Your task to perform on an android device: turn off priority inbox in the gmail app Image 0: 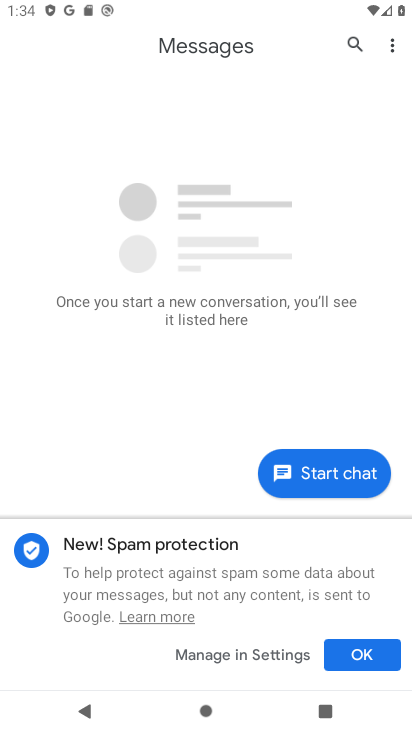
Step 0: press home button
Your task to perform on an android device: turn off priority inbox in the gmail app Image 1: 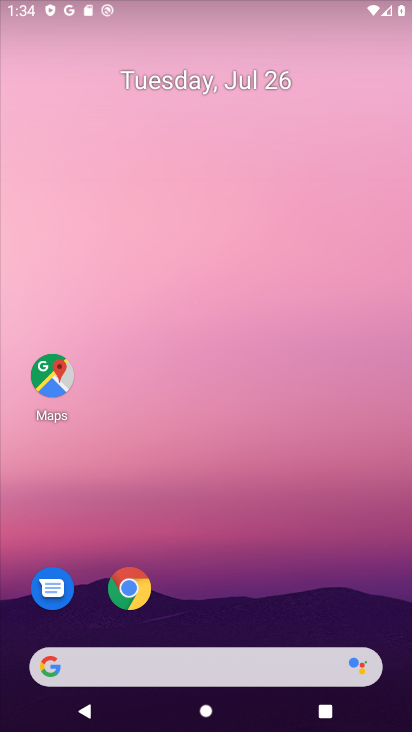
Step 1: drag from (221, 619) to (182, 35)
Your task to perform on an android device: turn off priority inbox in the gmail app Image 2: 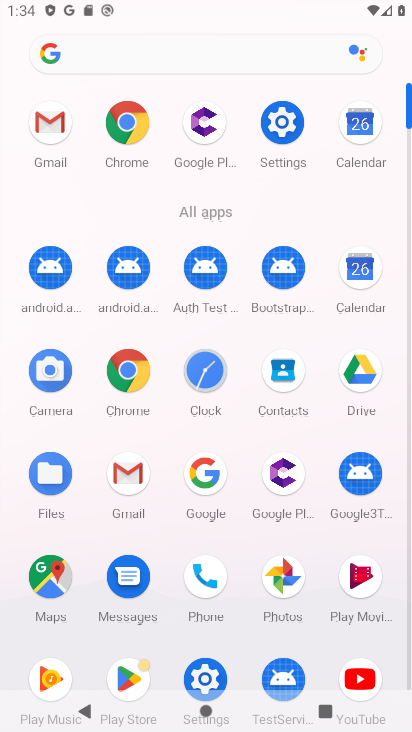
Step 2: click (133, 481)
Your task to perform on an android device: turn off priority inbox in the gmail app Image 3: 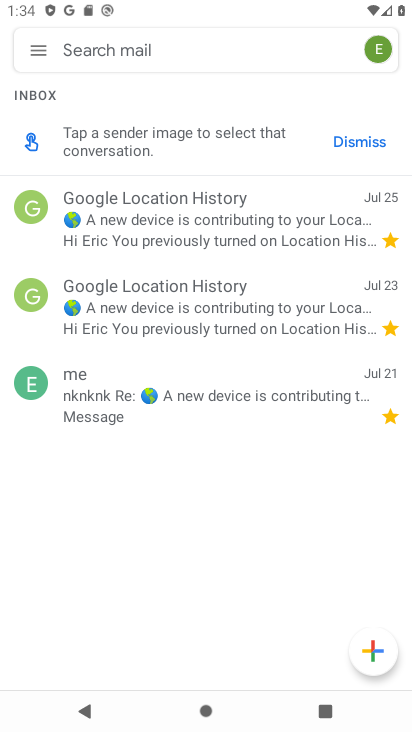
Step 3: click (28, 51)
Your task to perform on an android device: turn off priority inbox in the gmail app Image 4: 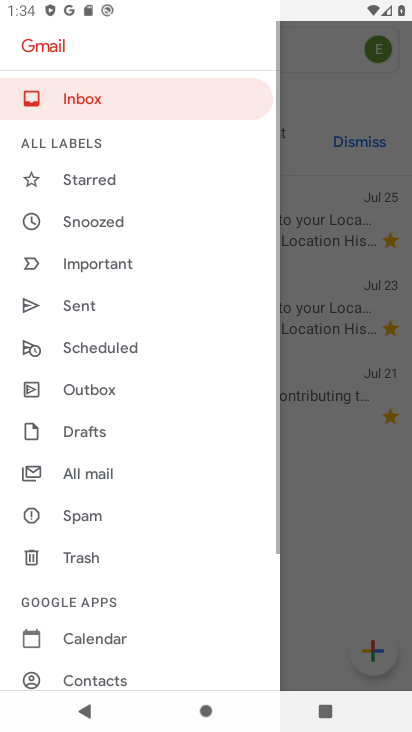
Step 4: drag from (101, 627) to (87, 113)
Your task to perform on an android device: turn off priority inbox in the gmail app Image 5: 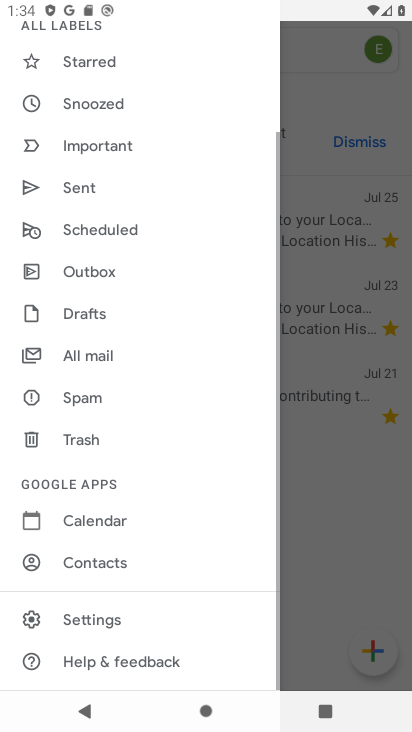
Step 5: click (105, 623)
Your task to perform on an android device: turn off priority inbox in the gmail app Image 6: 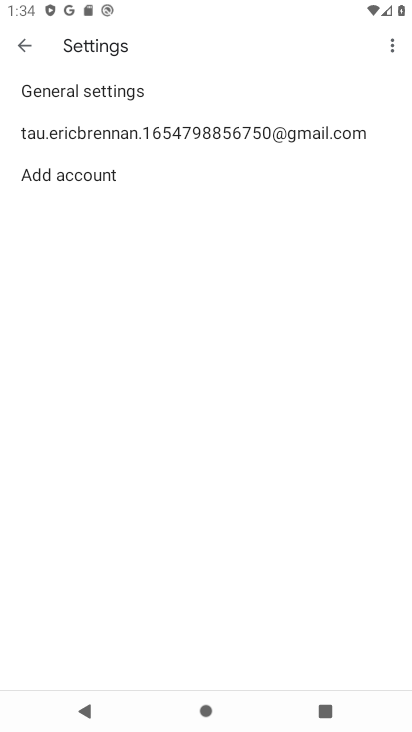
Step 6: click (59, 101)
Your task to perform on an android device: turn off priority inbox in the gmail app Image 7: 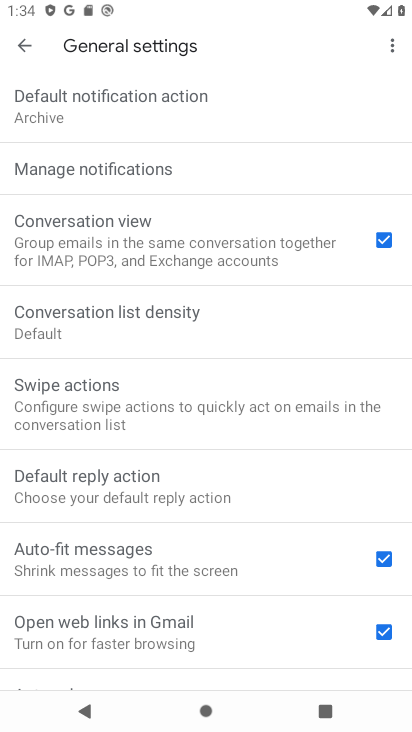
Step 7: click (31, 34)
Your task to perform on an android device: turn off priority inbox in the gmail app Image 8: 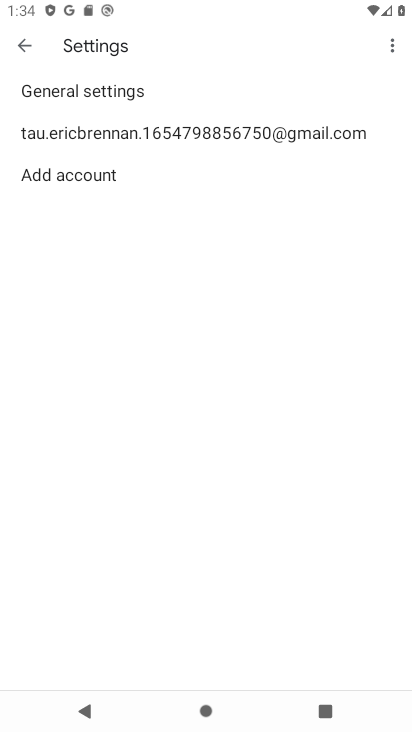
Step 8: click (74, 133)
Your task to perform on an android device: turn off priority inbox in the gmail app Image 9: 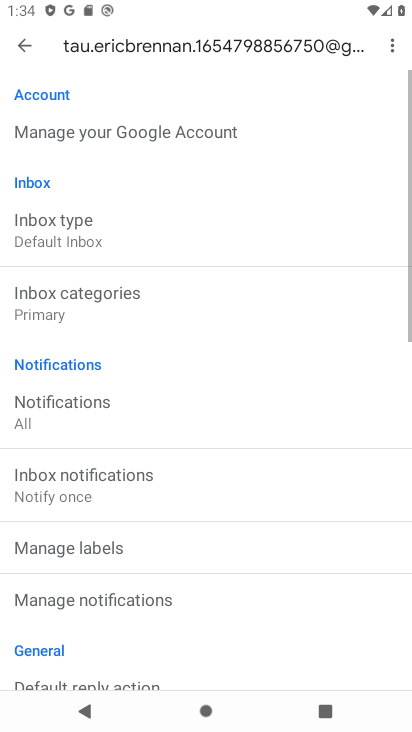
Step 9: click (55, 234)
Your task to perform on an android device: turn off priority inbox in the gmail app Image 10: 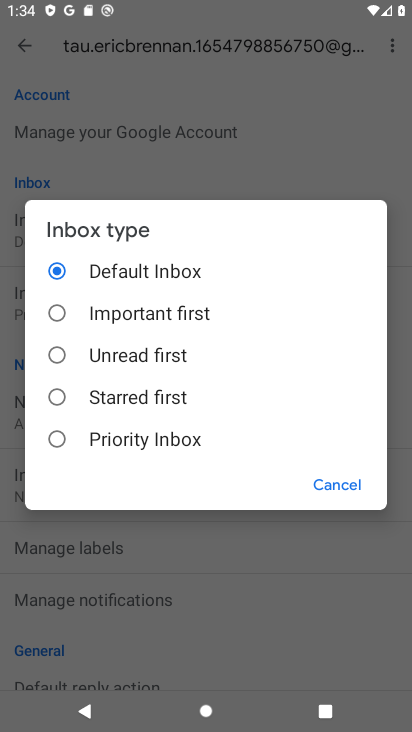
Step 10: task complete